Your task to perform on an android device: install app "Duolingo: language lessons" Image 0: 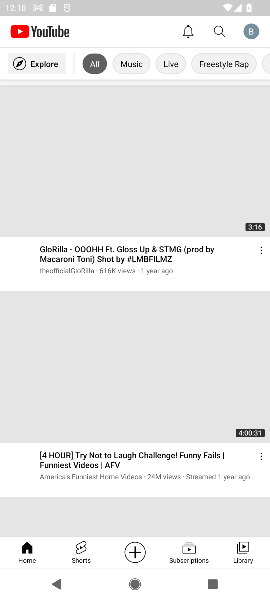
Step 0: press home button
Your task to perform on an android device: install app "Duolingo: language lessons" Image 1: 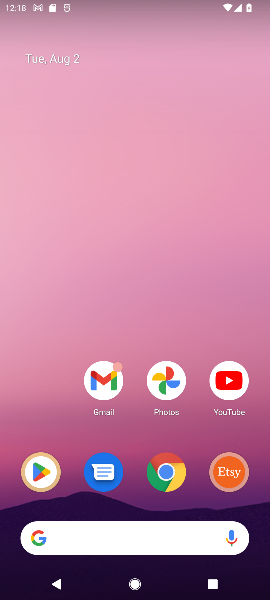
Step 1: click (36, 470)
Your task to perform on an android device: install app "Duolingo: language lessons" Image 2: 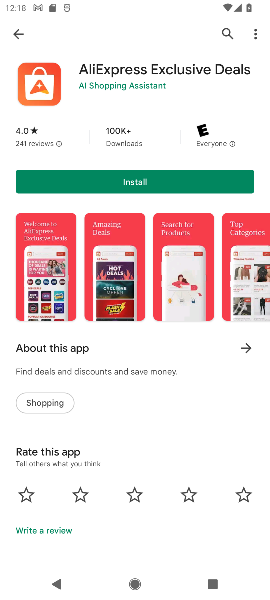
Step 2: click (228, 32)
Your task to perform on an android device: install app "Duolingo: language lessons" Image 3: 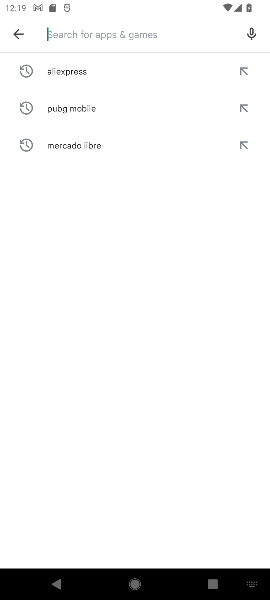
Step 3: type "duolingo: language lessons"
Your task to perform on an android device: install app "Duolingo: language lessons" Image 4: 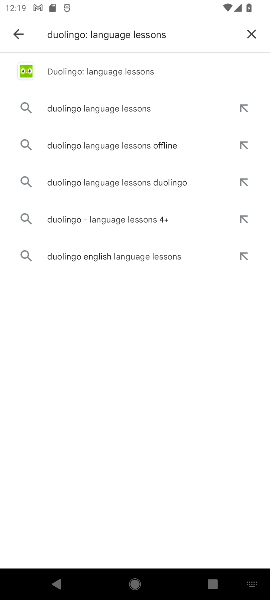
Step 4: click (126, 65)
Your task to perform on an android device: install app "Duolingo: language lessons" Image 5: 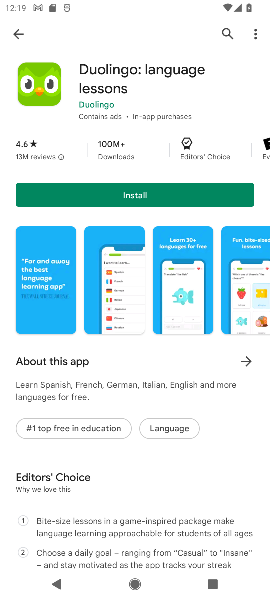
Step 5: click (104, 188)
Your task to perform on an android device: install app "Duolingo: language lessons" Image 6: 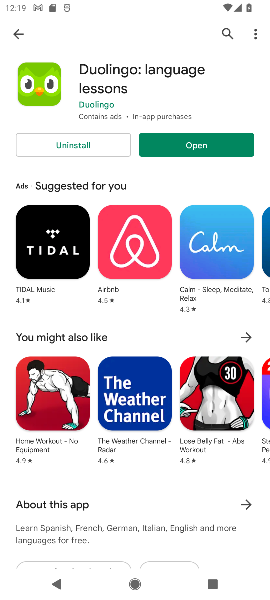
Step 6: task complete